Your task to perform on an android device: see creations saved in the google photos Image 0: 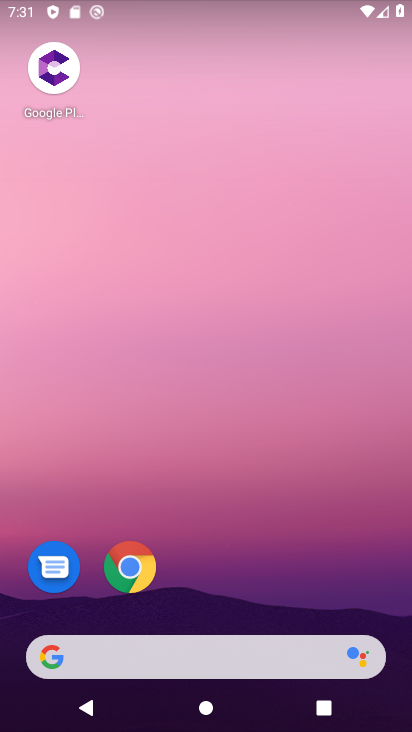
Step 0: drag from (239, 671) to (226, 9)
Your task to perform on an android device: see creations saved in the google photos Image 1: 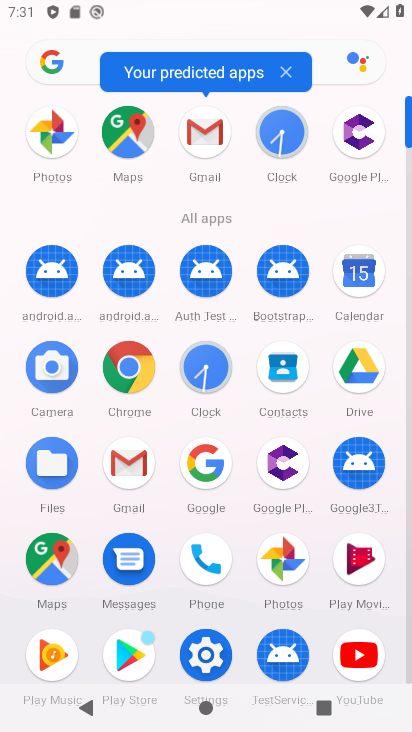
Step 1: click (286, 552)
Your task to perform on an android device: see creations saved in the google photos Image 2: 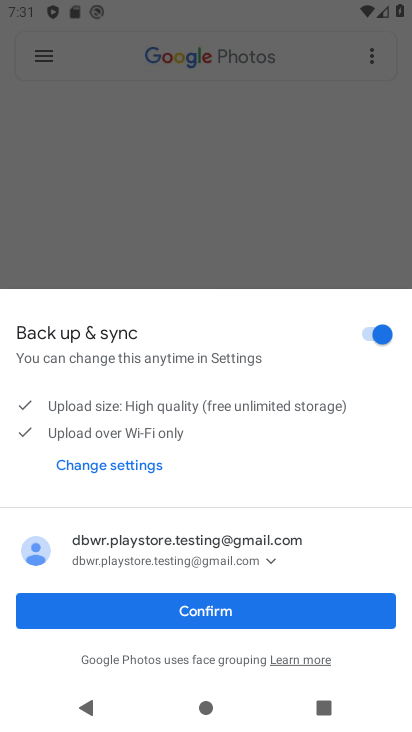
Step 2: click (246, 612)
Your task to perform on an android device: see creations saved in the google photos Image 3: 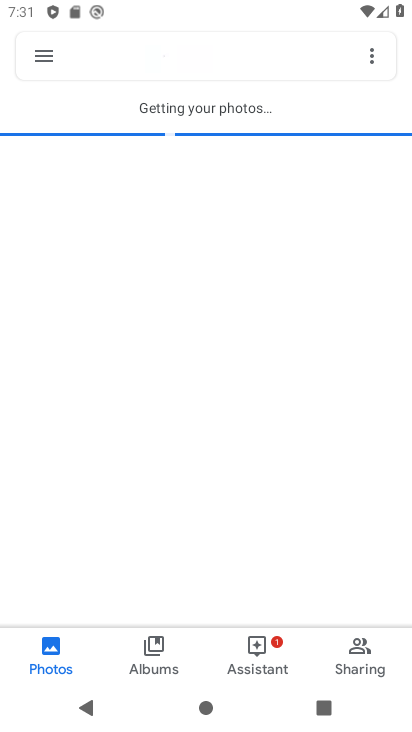
Step 3: click (135, 51)
Your task to perform on an android device: see creations saved in the google photos Image 4: 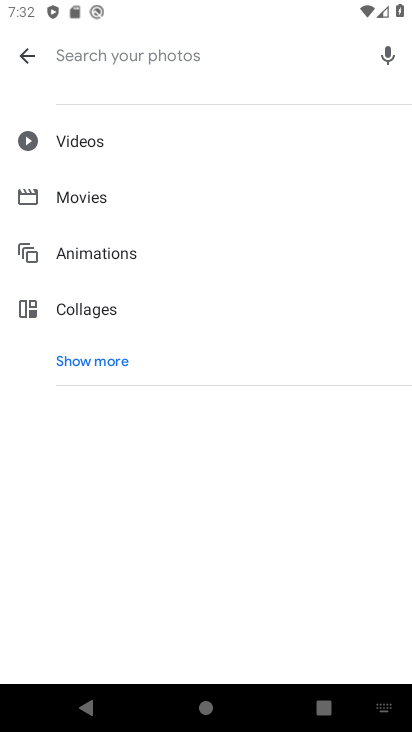
Step 4: click (99, 356)
Your task to perform on an android device: see creations saved in the google photos Image 5: 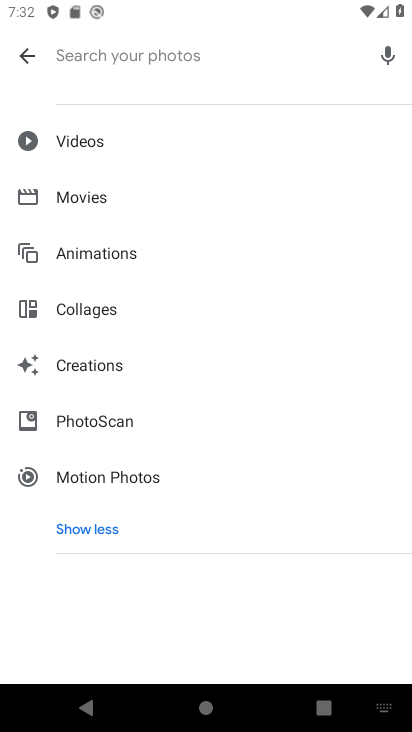
Step 5: click (99, 359)
Your task to perform on an android device: see creations saved in the google photos Image 6: 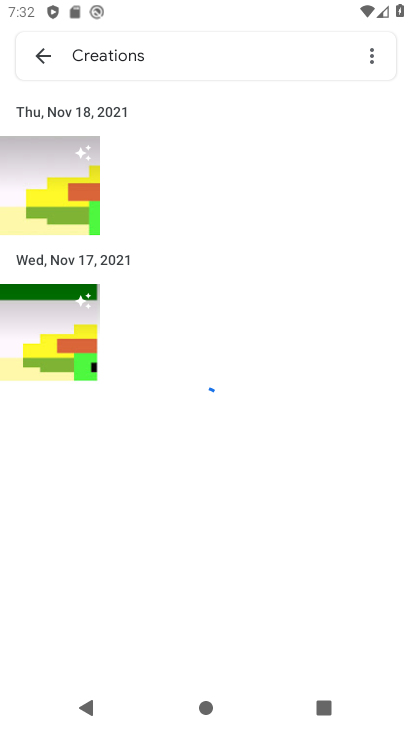
Step 6: task complete